Your task to perform on an android device: open wifi settings Image 0: 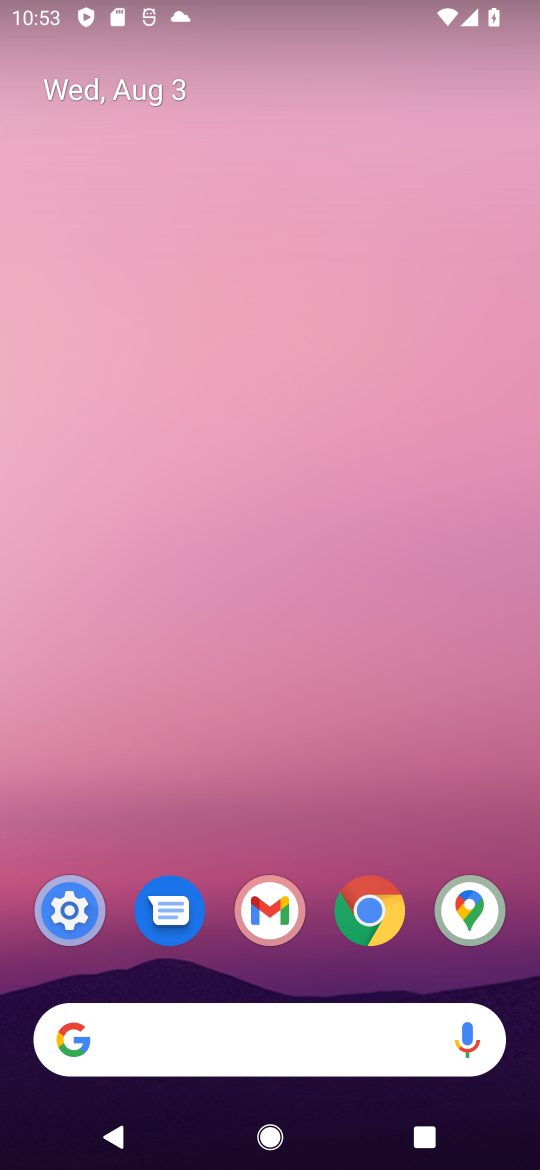
Step 0: press home button
Your task to perform on an android device: open wifi settings Image 1: 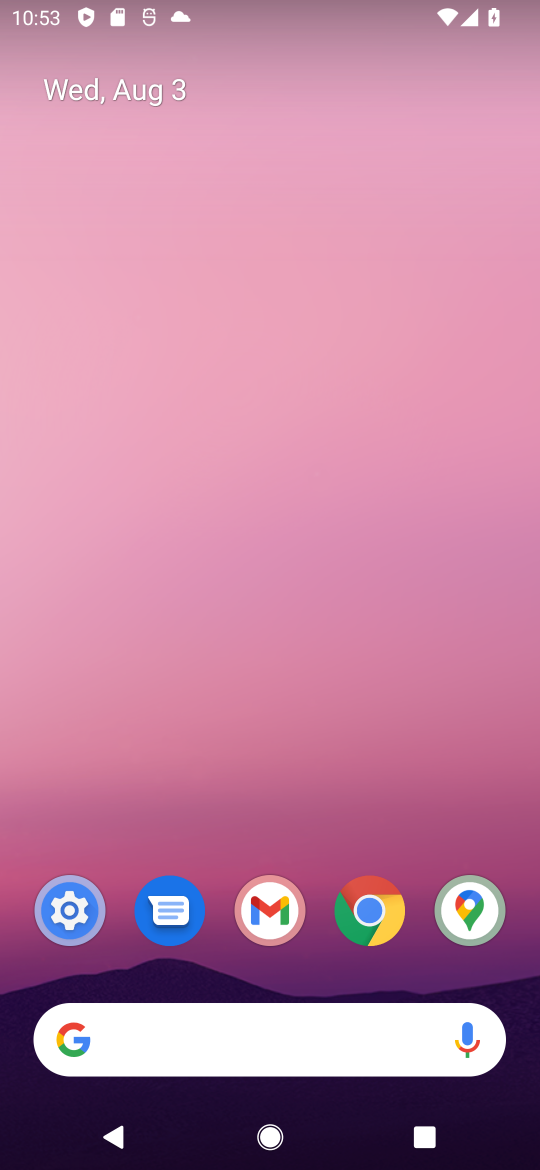
Step 1: drag from (313, 836) to (324, 0)
Your task to perform on an android device: open wifi settings Image 2: 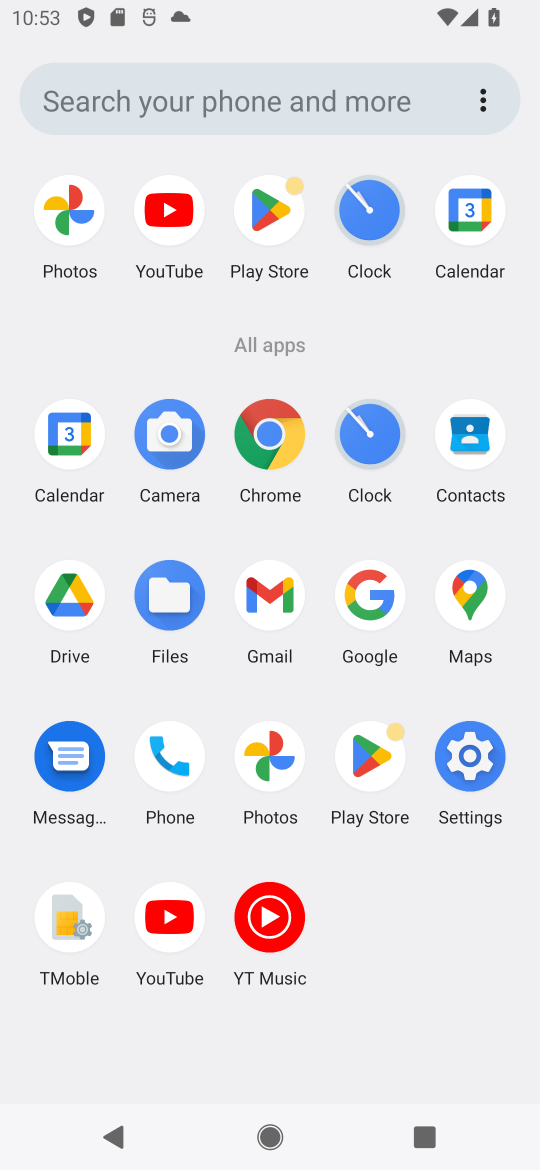
Step 2: click (458, 750)
Your task to perform on an android device: open wifi settings Image 3: 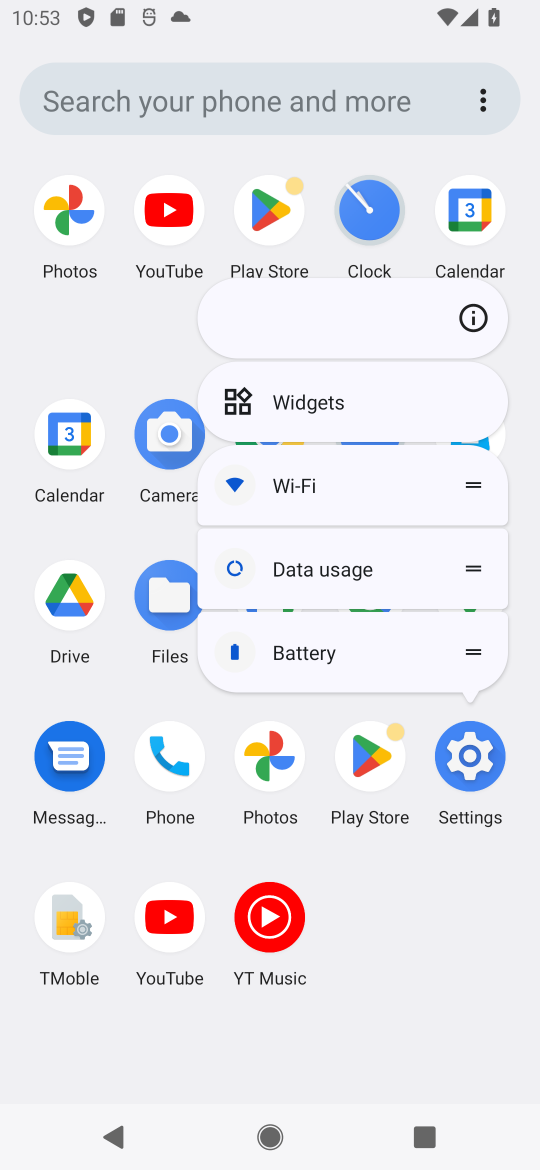
Step 3: click (470, 747)
Your task to perform on an android device: open wifi settings Image 4: 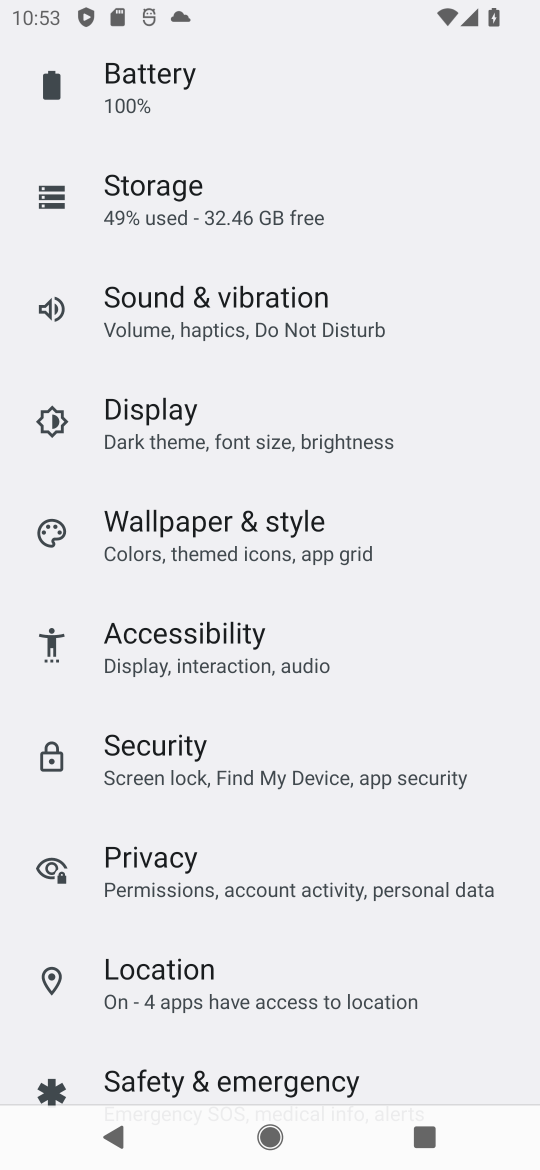
Step 4: drag from (261, 198) to (312, 1050)
Your task to perform on an android device: open wifi settings Image 5: 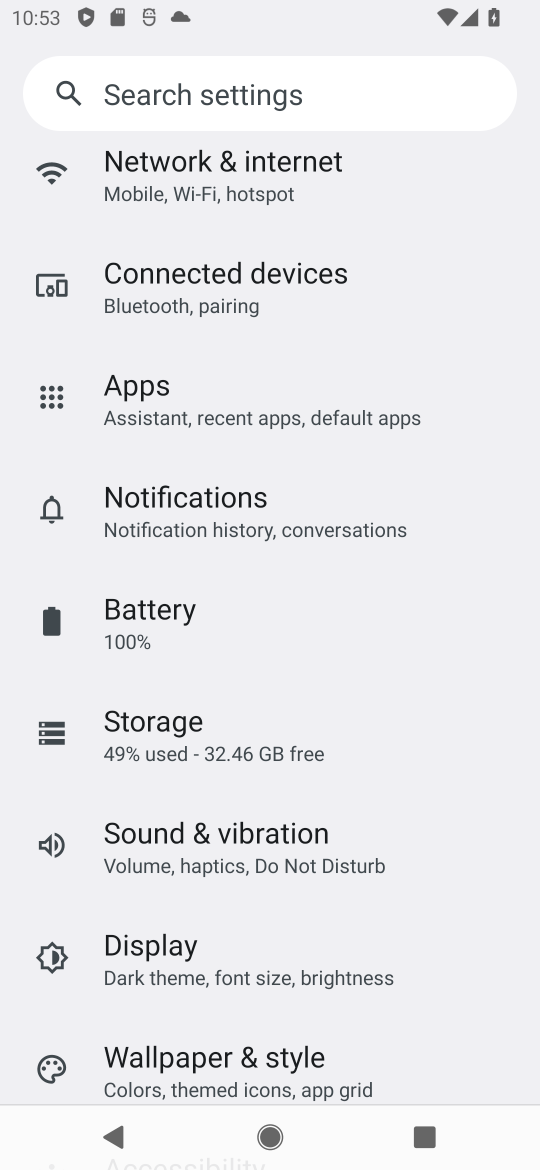
Step 5: drag from (186, 199) to (205, 777)
Your task to perform on an android device: open wifi settings Image 6: 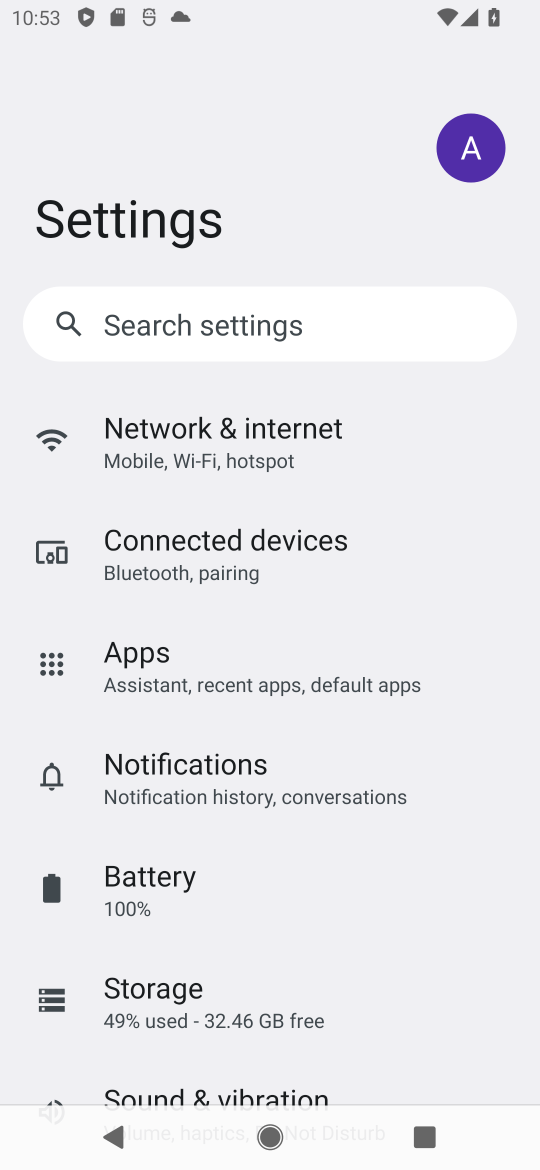
Step 6: click (253, 439)
Your task to perform on an android device: open wifi settings Image 7: 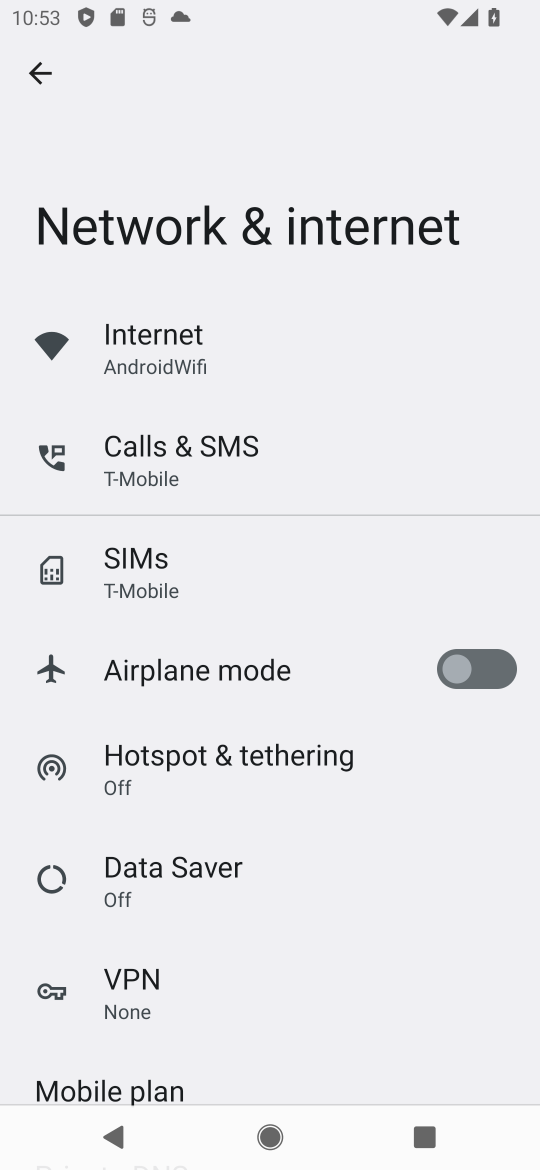
Step 7: click (241, 340)
Your task to perform on an android device: open wifi settings Image 8: 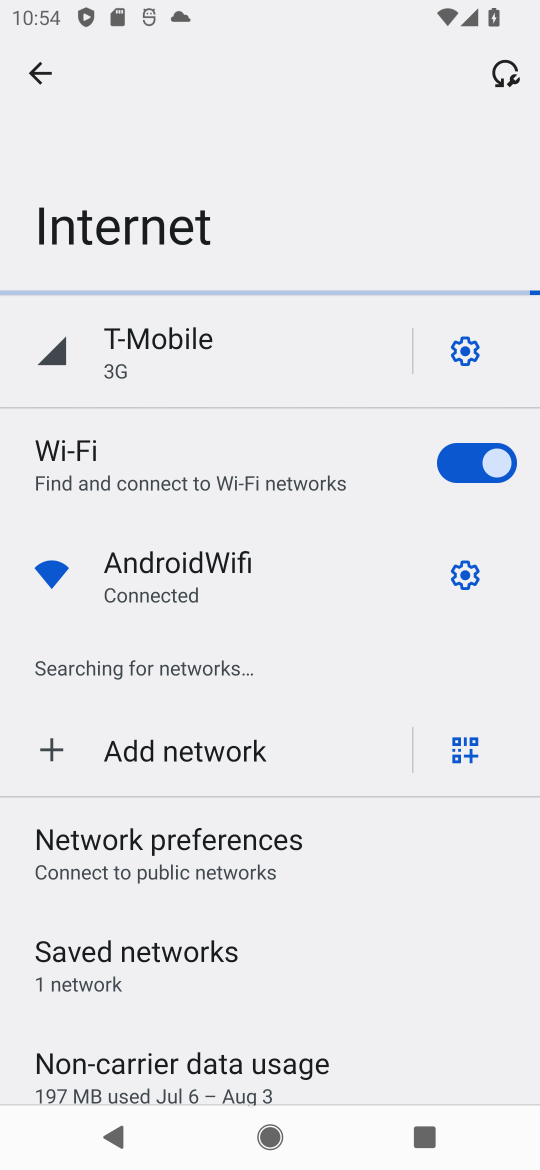
Step 8: task complete